Your task to perform on an android device: turn on data saver in the chrome app Image 0: 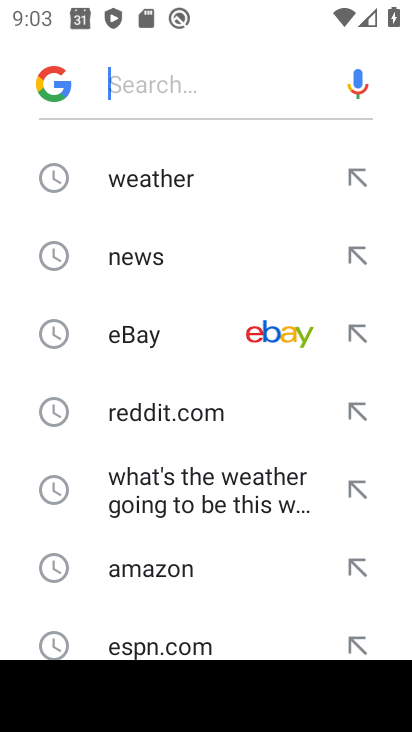
Step 0: press back button
Your task to perform on an android device: turn on data saver in the chrome app Image 1: 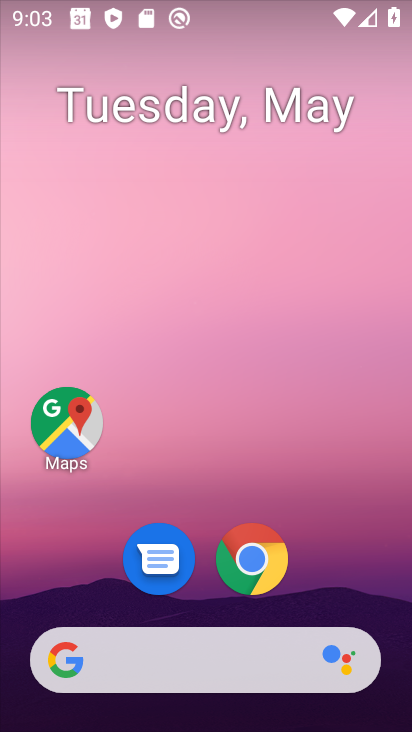
Step 1: drag from (314, 357) to (223, 14)
Your task to perform on an android device: turn on data saver in the chrome app Image 2: 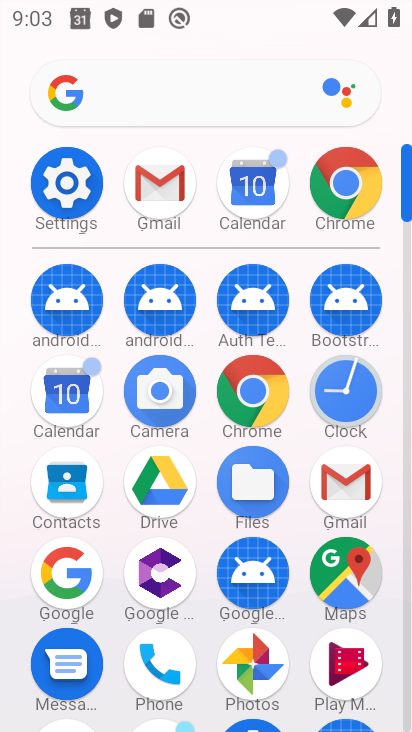
Step 2: click (335, 178)
Your task to perform on an android device: turn on data saver in the chrome app Image 3: 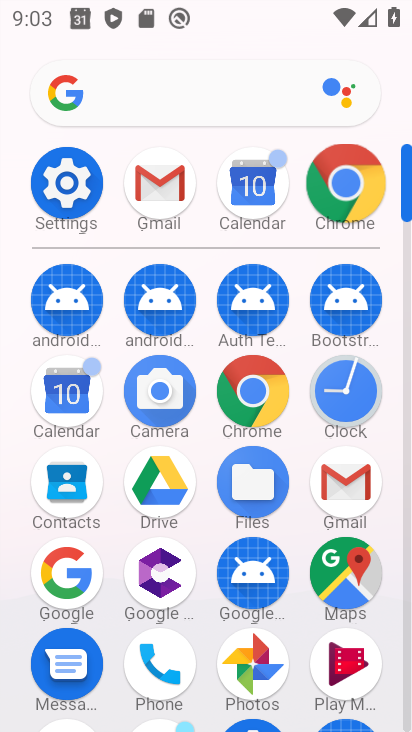
Step 3: click (335, 178)
Your task to perform on an android device: turn on data saver in the chrome app Image 4: 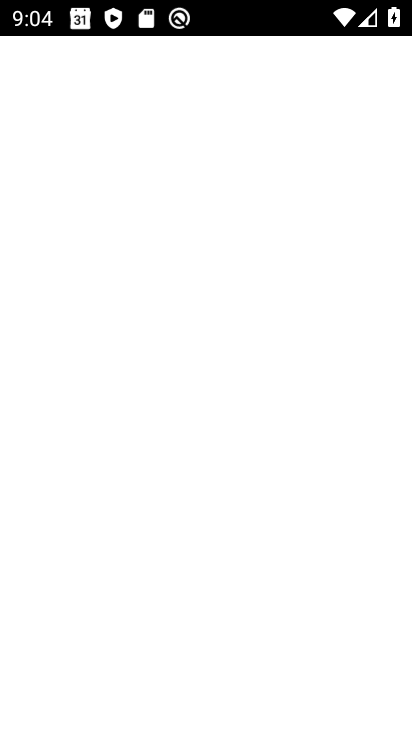
Step 4: click (335, 178)
Your task to perform on an android device: turn on data saver in the chrome app Image 5: 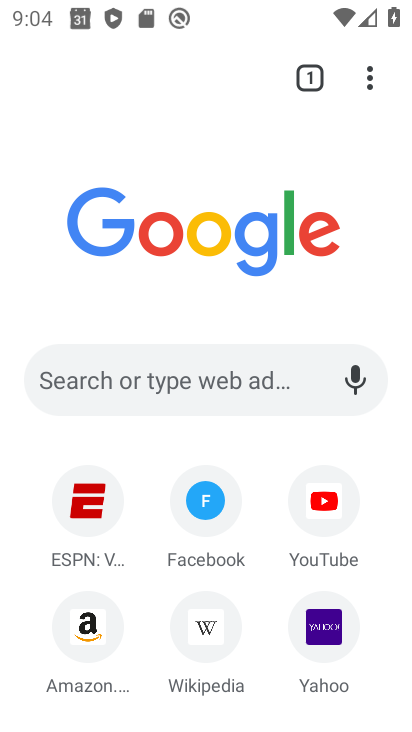
Step 5: click (73, 378)
Your task to perform on an android device: turn on data saver in the chrome app Image 6: 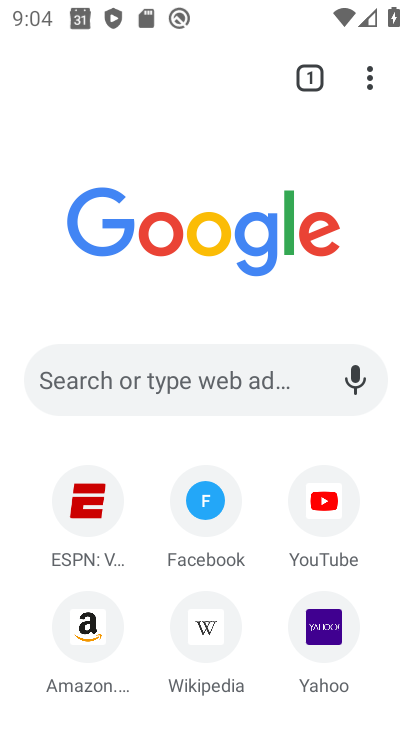
Step 6: click (72, 378)
Your task to perform on an android device: turn on data saver in the chrome app Image 7: 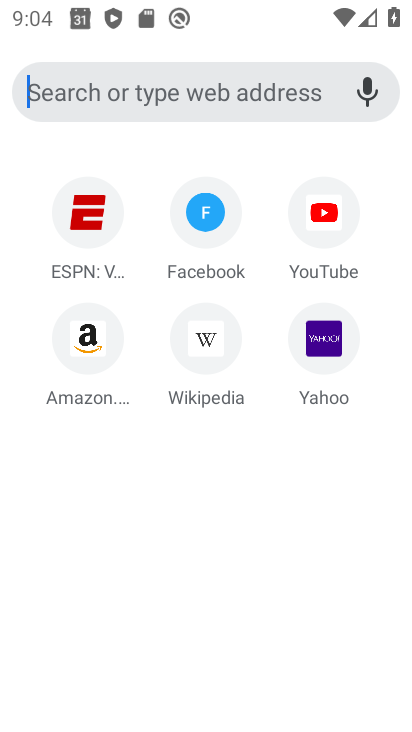
Step 7: click (72, 378)
Your task to perform on an android device: turn on data saver in the chrome app Image 8: 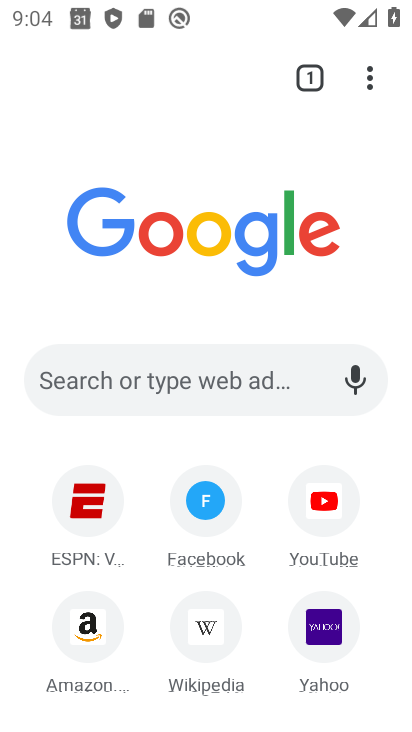
Step 8: click (83, 381)
Your task to perform on an android device: turn on data saver in the chrome app Image 9: 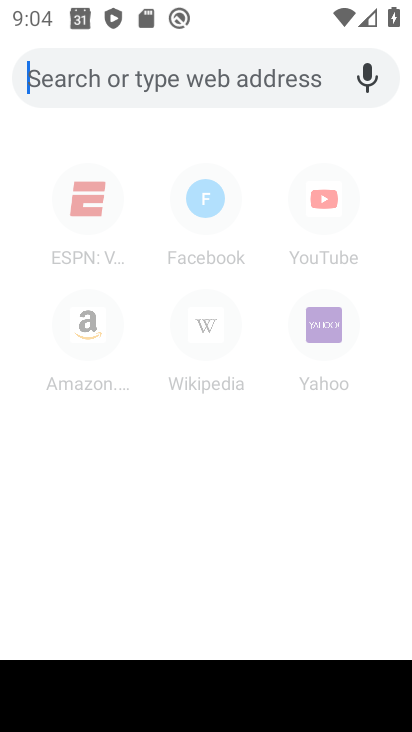
Step 9: press back button
Your task to perform on an android device: turn on data saver in the chrome app Image 10: 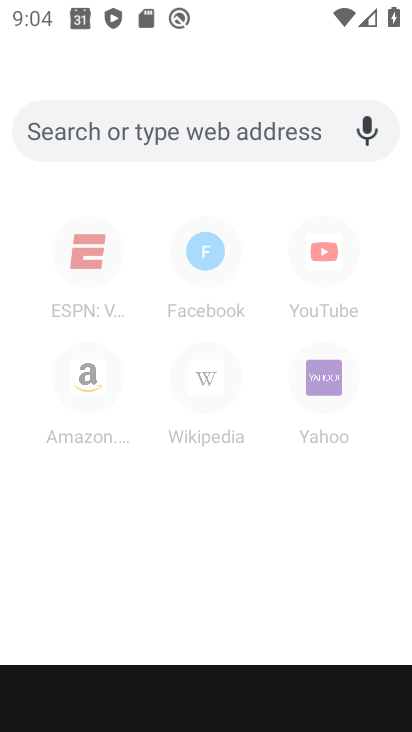
Step 10: press back button
Your task to perform on an android device: turn on data saver in the chrome app Image 11: 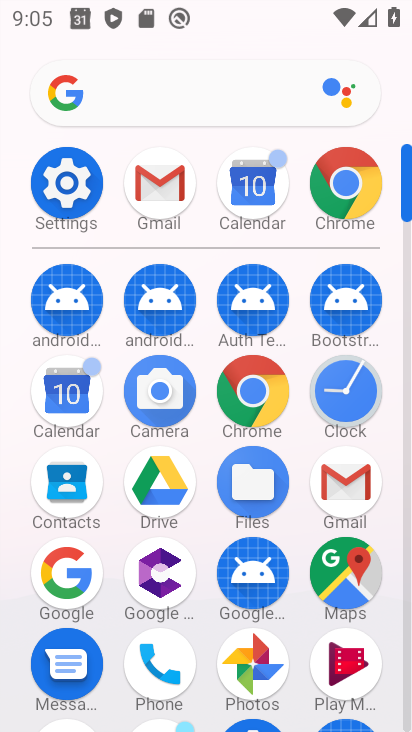
Step 11: click (351, 193)
Your task to perform on an android device: turn on data saver in the chrome app Image 12: 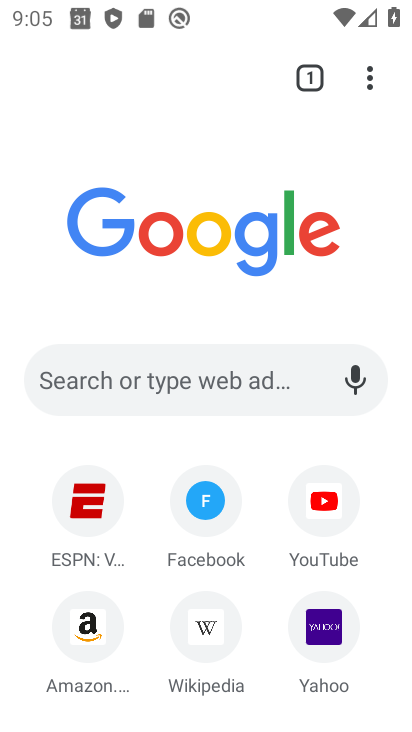
Step 12: drag from (371, 80) to (92, 614)
Your task to perform on an android device: turn on data saver in the chrome app Image 13: 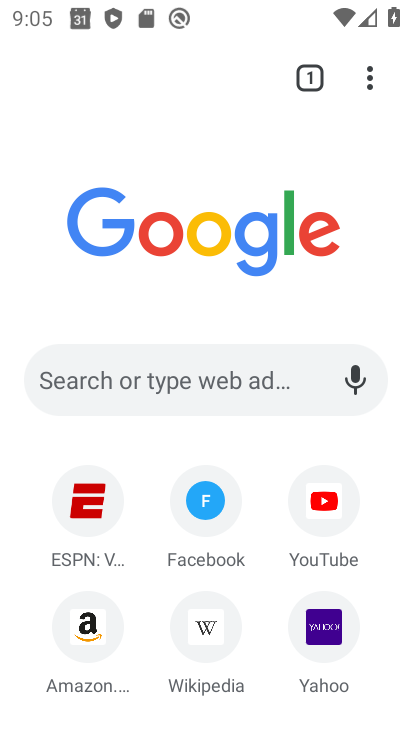
Step 13: click (92, 614)
Your task to perform on an android device: turn on data saver in the chrome app Image 14: 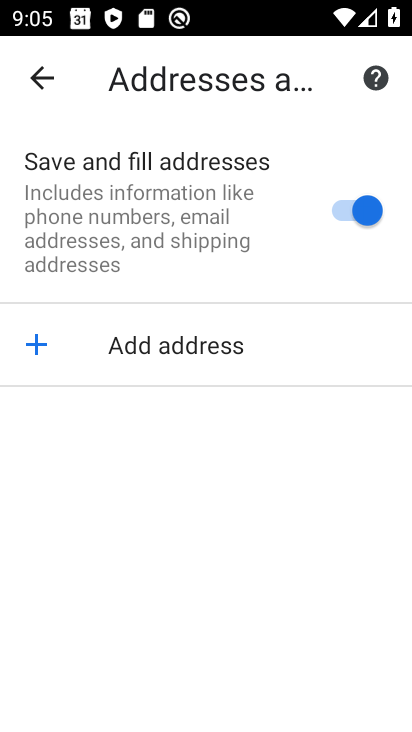
Step 14: click (40, 88)
Your task to perform on an android device: turn on data saver in the chrome app Image 15: 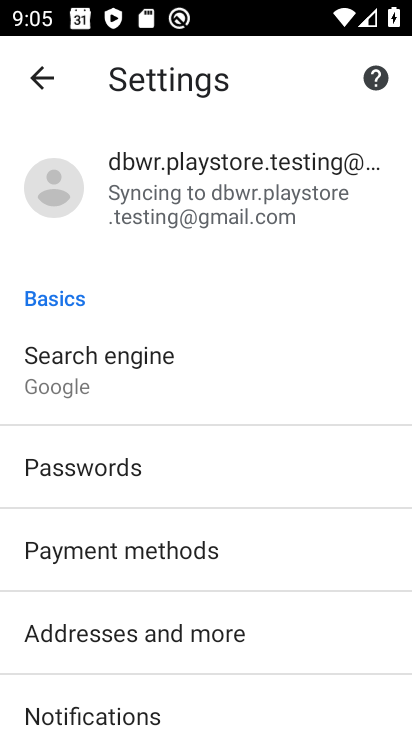
Step 15: click (35, 83)
Your task to perform on an android device: turn on data saver in the chrome app Image 16: 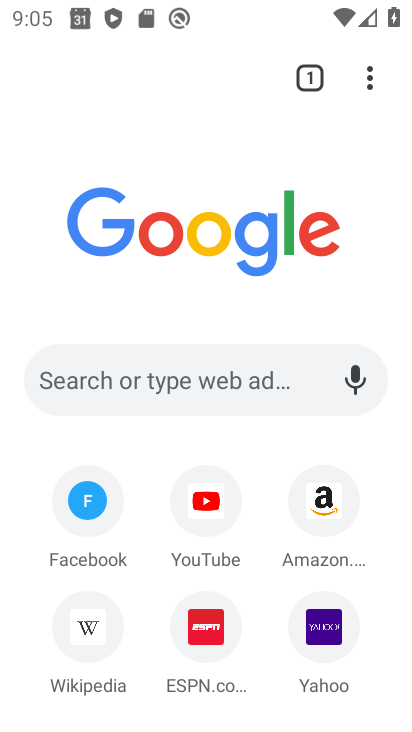
Step 16: click (373, 73)
Your task to perform on an android device: turn on data saver in the chrome app Image 17: 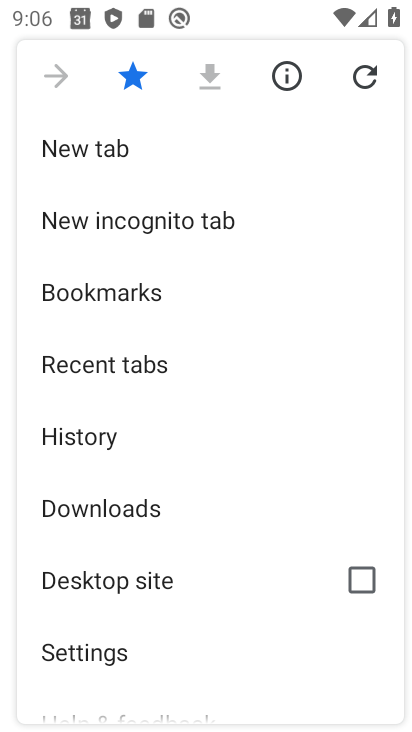
Step 17: click (92, 650)
Your task to perform on an android device: turn on data saver in the chrome app Image 18: 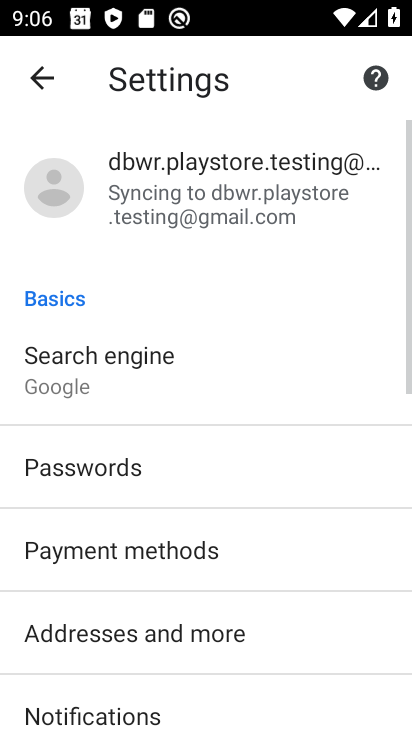
Step 18: drag from (195, 525) to (189, 225)
Your task to perform on an android device: turn on data saver in the chrome app Image 19: 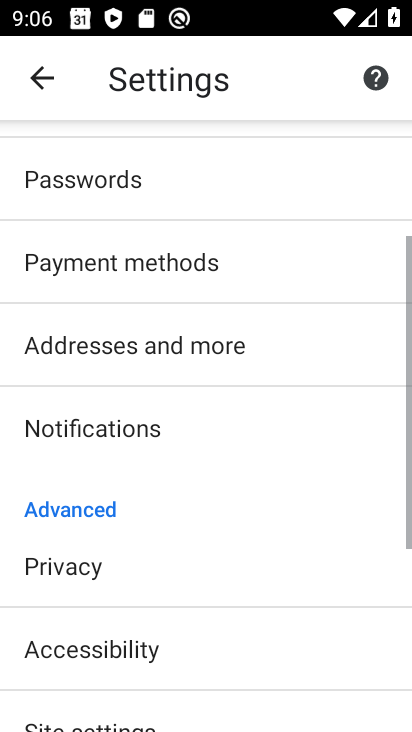
Step 19: drag from (167, 473) to (167, 187)
Your task to perform on an android device: turn on data saver in the chrome app Image 20: 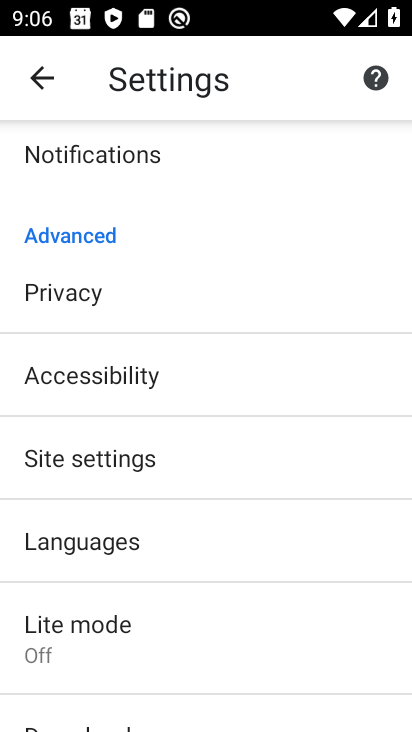
Step 20: click (85, 623)
Your task to perform on an android device: turn on data saver in the chrome app Image 21: 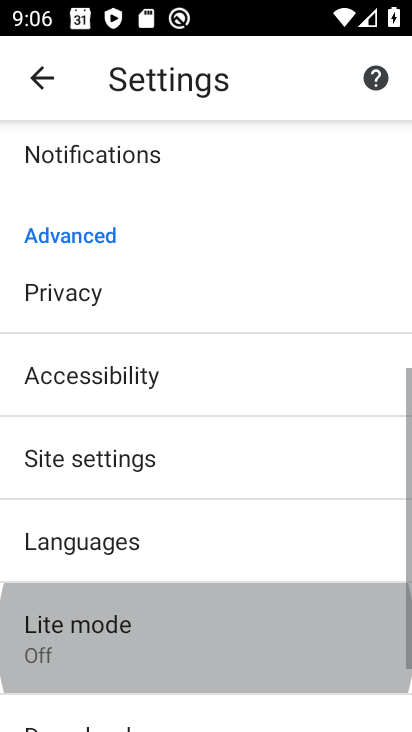
Step 21: click (85, 624)
Your task to perform on an android device: turn on data saver in the chrome app Image 22: 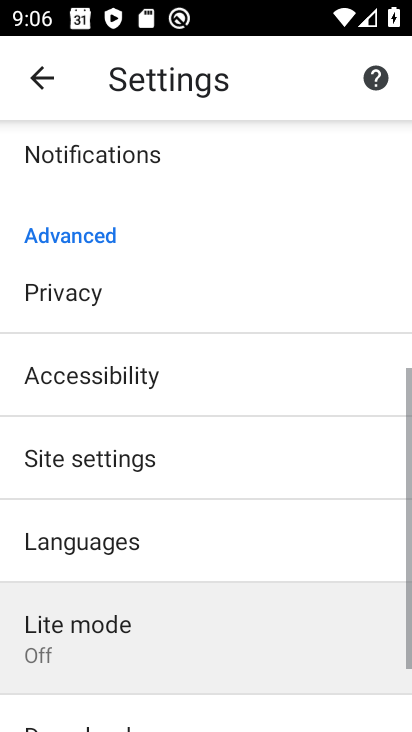
Step 22: click (85, 624)
Your task to perform on an android device: turn on data saver in the chrome app Image 23: 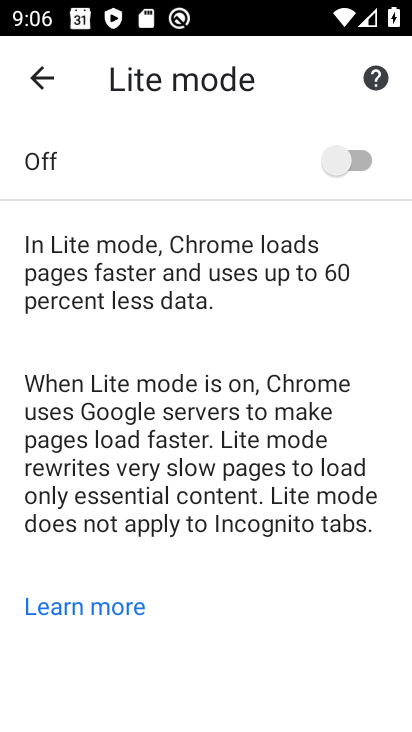
Step 23: click (335, 163)
Your task to perform on an android device: turn on data saver in the chrome app Image 24: 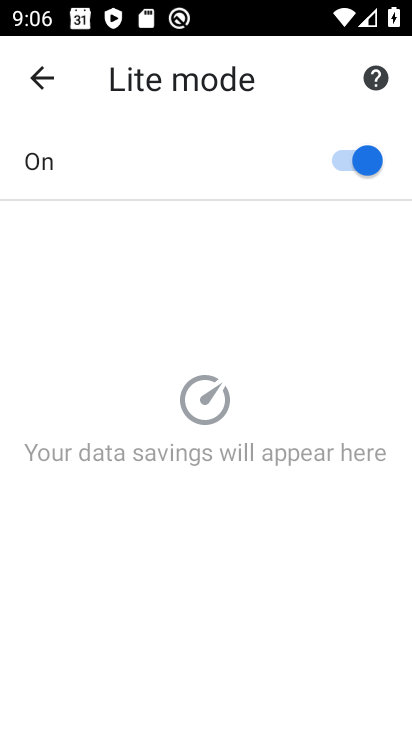
Step 24: task complete